Your task to perform on an android device: Go to Amazon Image 0: 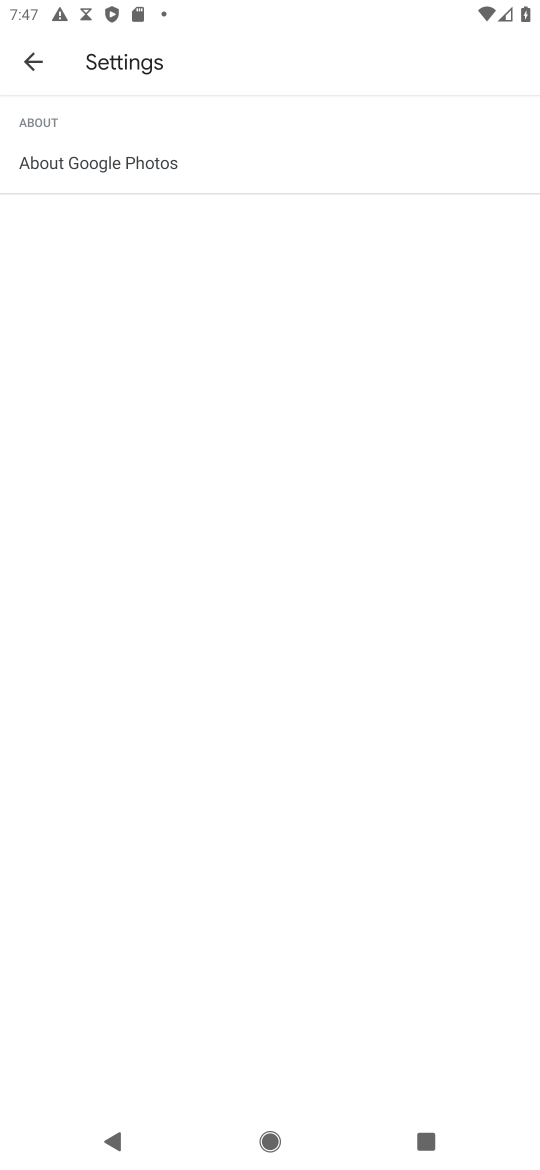
Step 0: press home button
Your task to perform on an android device: Go to Amazon Image 1: 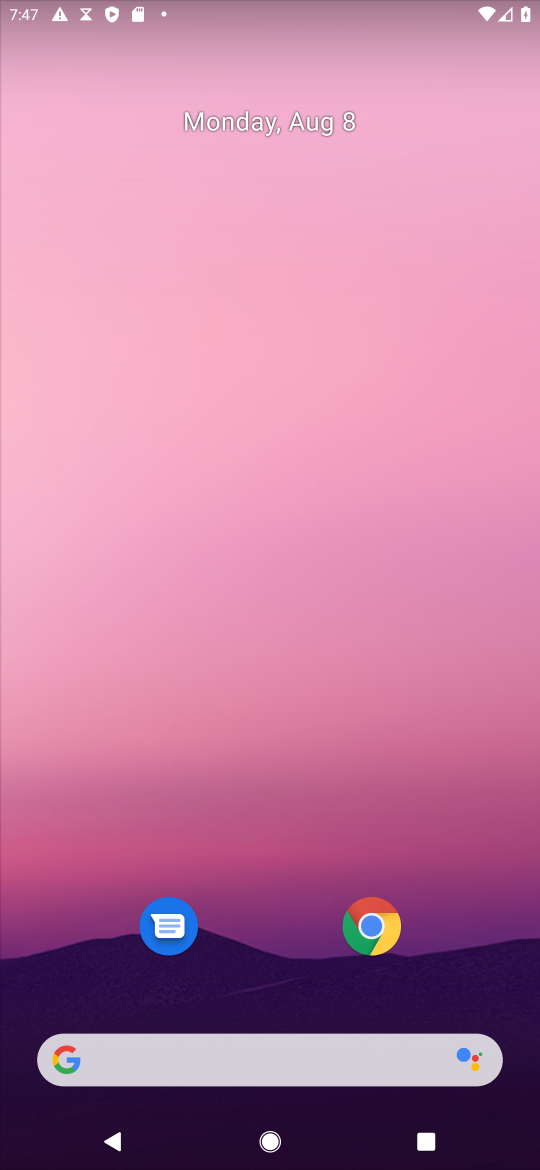
Step 1: click (379, 929)
Your task to perform on an android device: Go to Amazon Image 2: 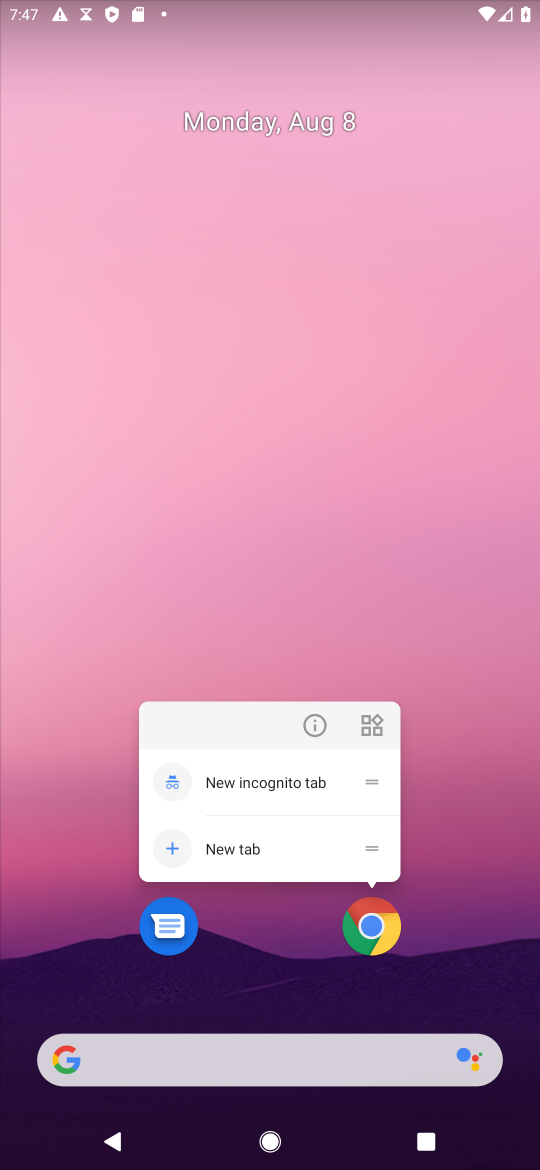
Step 2: click (378, 916)
Your task to perform on an android device: Go to Amazon Image 3: 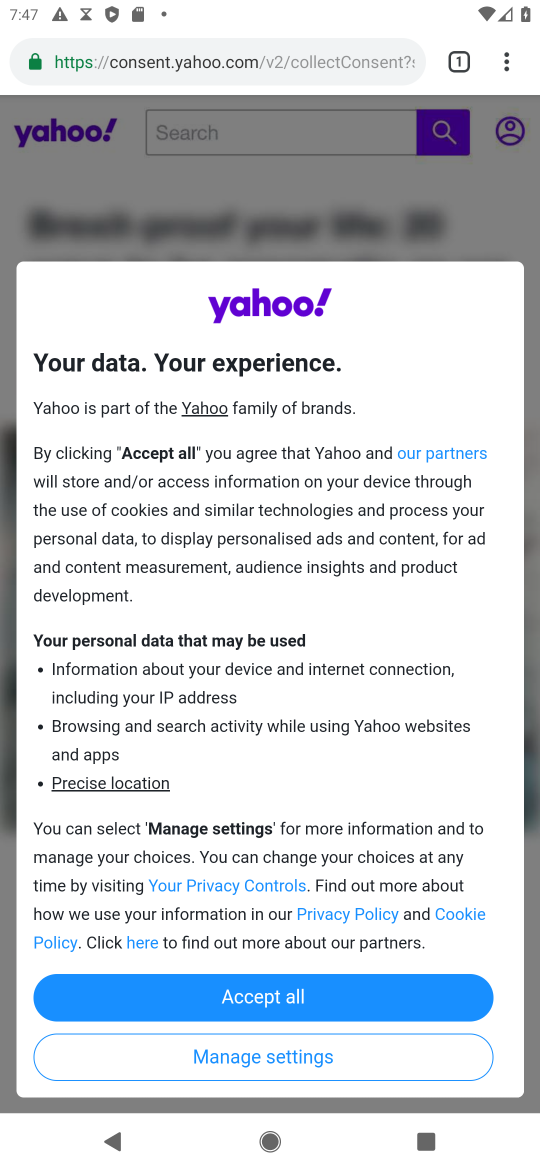
Step 3: click (248, 68)
Your task to perform on an android device: Go to Amazon Image 4: 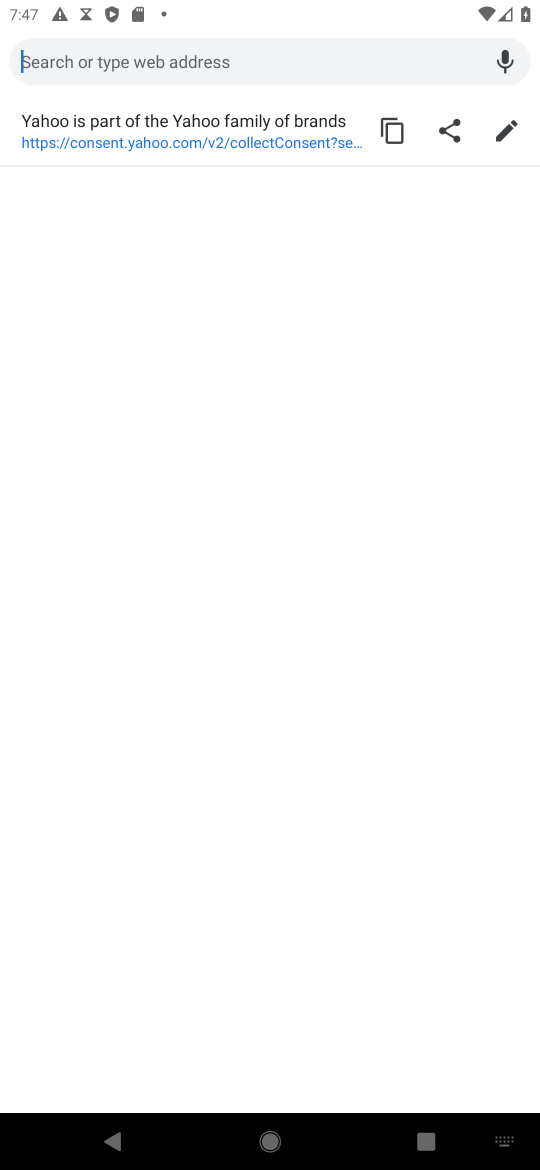
Step 4: type "Amazon"
Your task to perform on an android device: Go to Amazon Image 5: 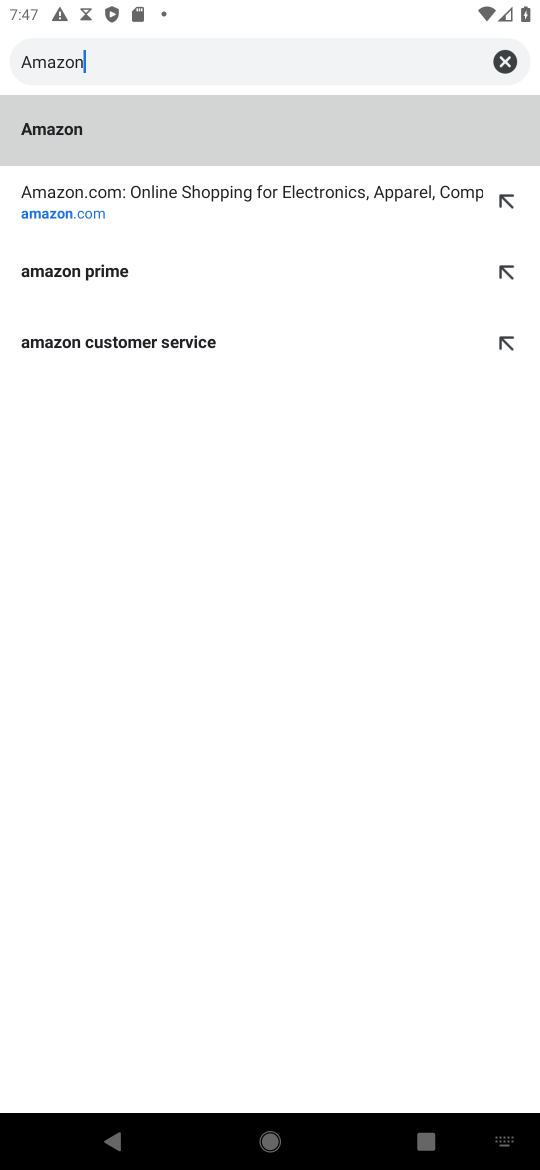
Step 5: click (125, 210)
Your task to perform on an android device: Go to Amazon Image 6: 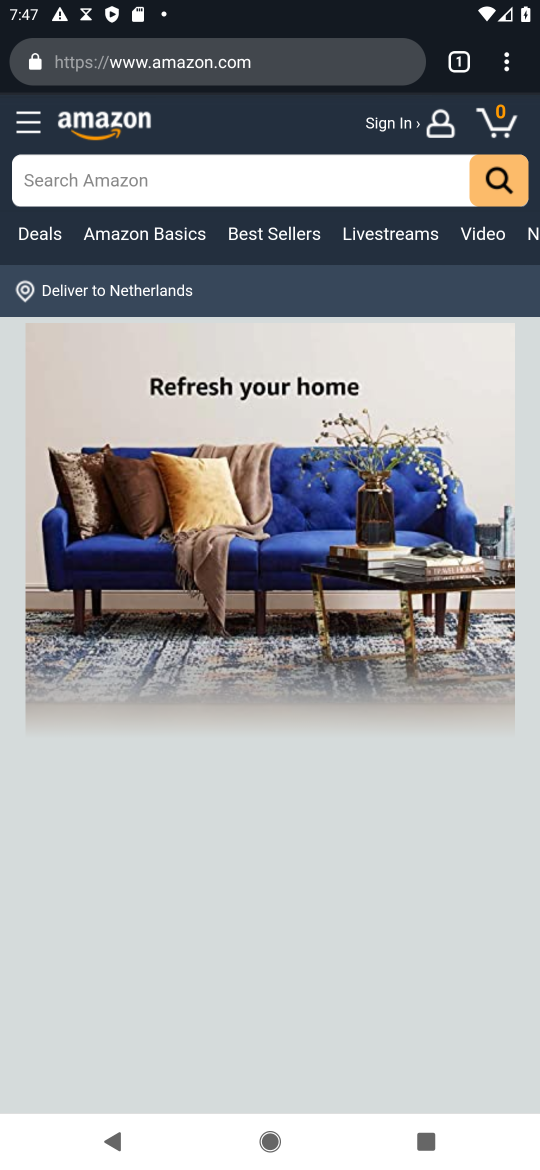
Step 6: task complete